Your task to perform on an android device: turn on notifications settings in the gmail app Image 0: 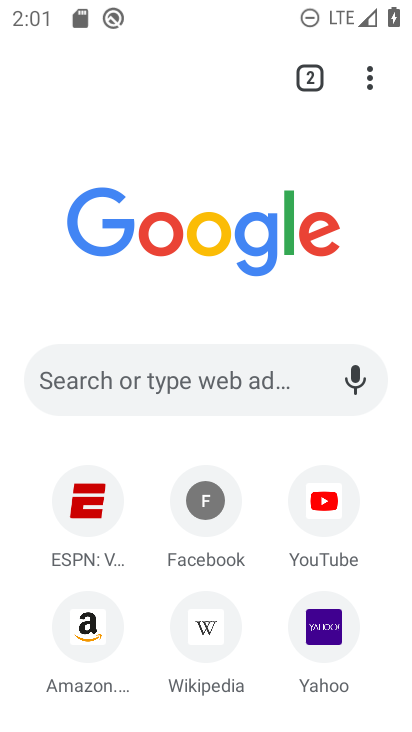
Step 0: press home button
Your task to perform on an android device: turn on notifications settings in the gmail app Image 1: 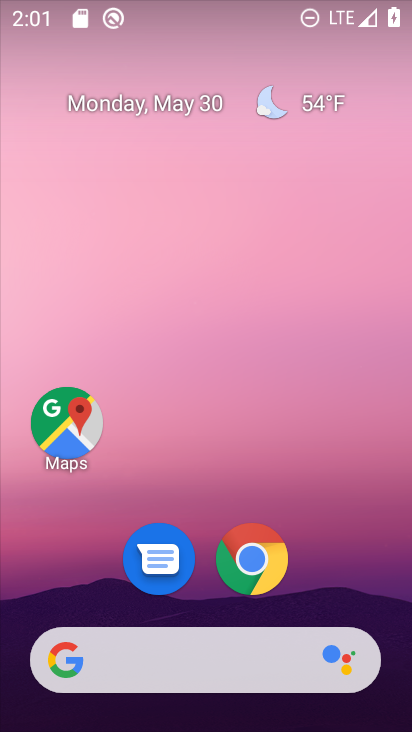
Step 1: drag from (328, 601) to (352, 48)
Your task to perform on an android device: turn on notifications settings in the gmail app Image 2: 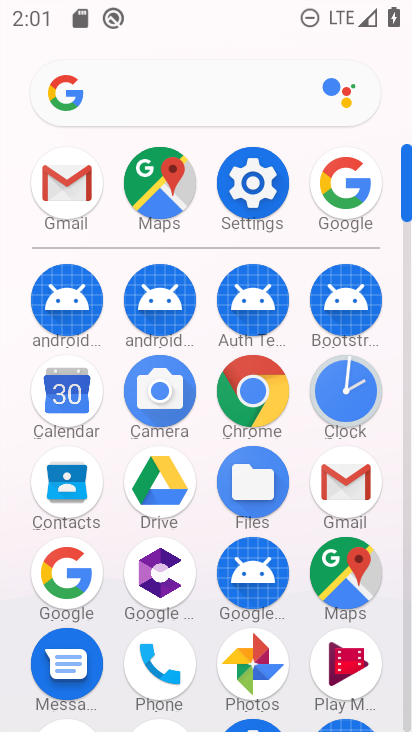
Step 2: click (337, 483)
Your task to perform on an android device: turn on notifications settings in the gmail app Image 3: 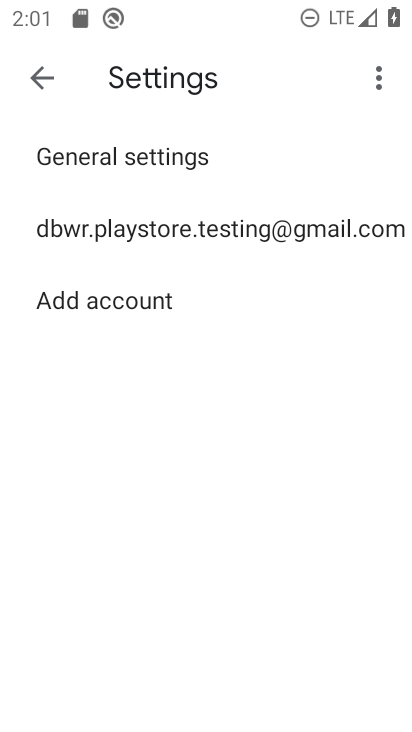
Step 3: click (59, 234)
Your task to perform on an android device: turn on notifications settings in the gmail app Image 4: 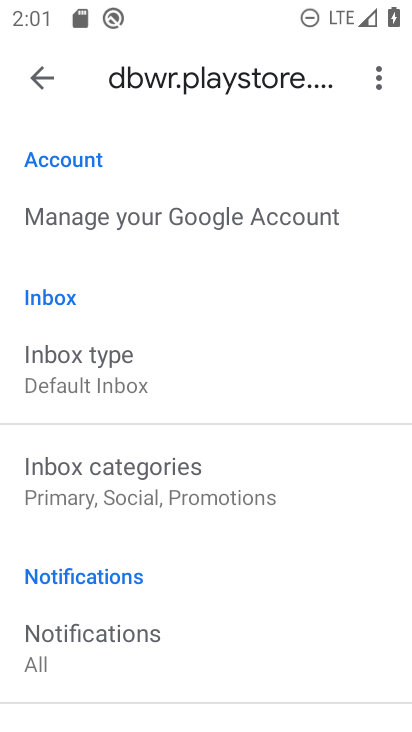
Step 4: drag from (195, 638) to (252, 196)
Your task to perform on an android device: turn on notifications settings in the gmail app Image 5: 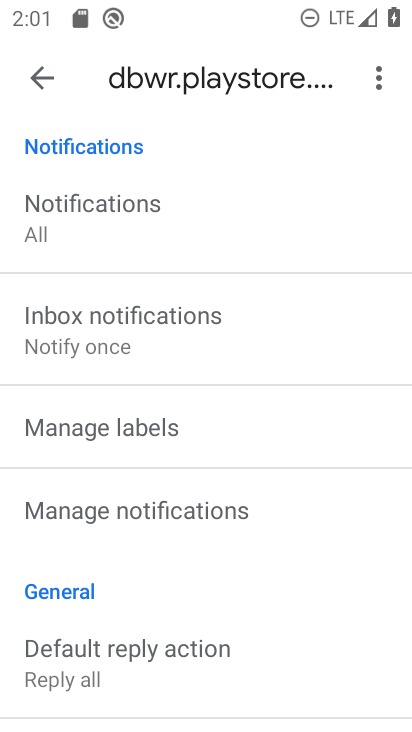
Step 5: click (177, 507)
Your task to perform on an android device: turn on notifications settings in the gmail app Image 6: 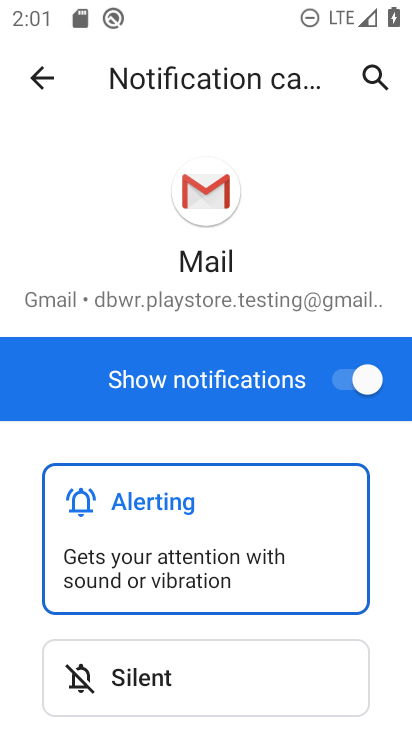
Step 6: task complete